Your task to perform on an android device: open sync settings in chrome Image 0: 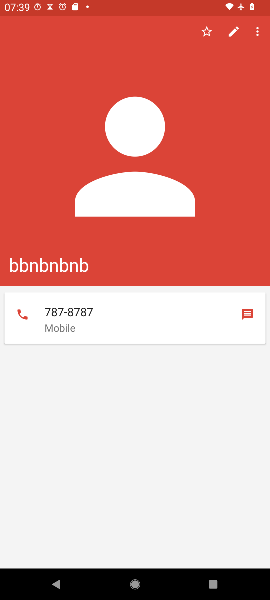
Step 0: press home button
Your task to perform on an android device: open sync settings in chrome Image 1: 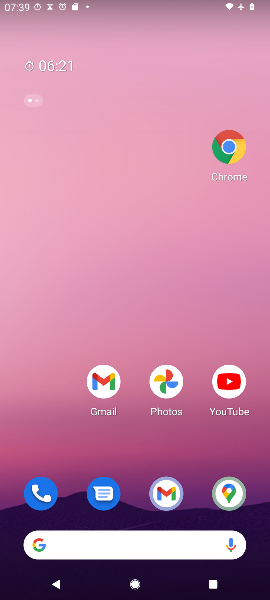
Step 1: click (228, 145)
Your task to perform on an android device: open sync settings in chrome Image 2: 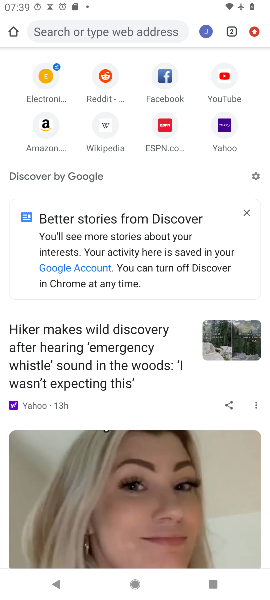
Step 2: drag from (249, 33) to (162, 307)
Your task to perform on an android device: open sync settings in chrome Image 3: 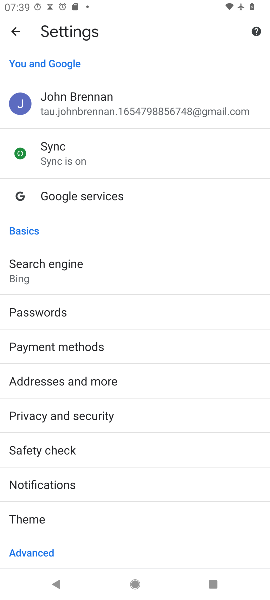
Step 3: click (71, 153)
Your task to perform on an android device: open sync settings in chrome Image 4: 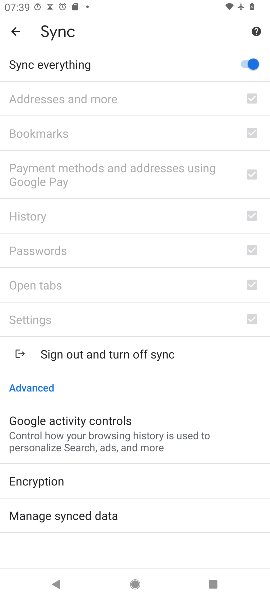
Step 4: task complete